Your task to perform on an android device: Search for Mexican restaurants on Maps Image 0: 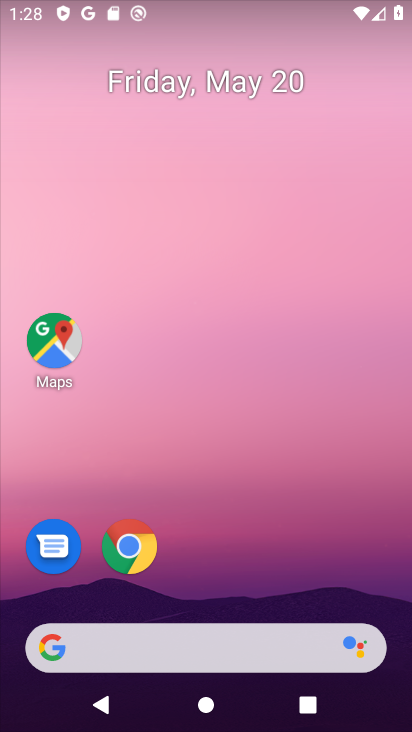
Step 0: drag from (138, 577) to (247, 2)
Your task to perform on an android device: Search for Mexican restaurants on Maps Image 1: 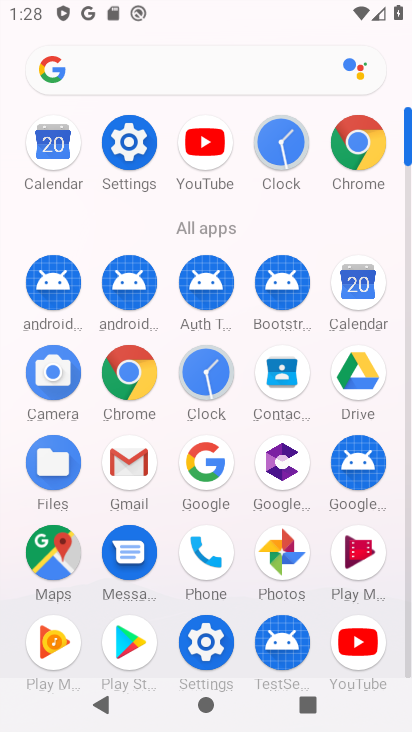
Step 1: click (60, 552)
Your task to perform on an android device: Search for Mexican restaurants on Maps Image 2: 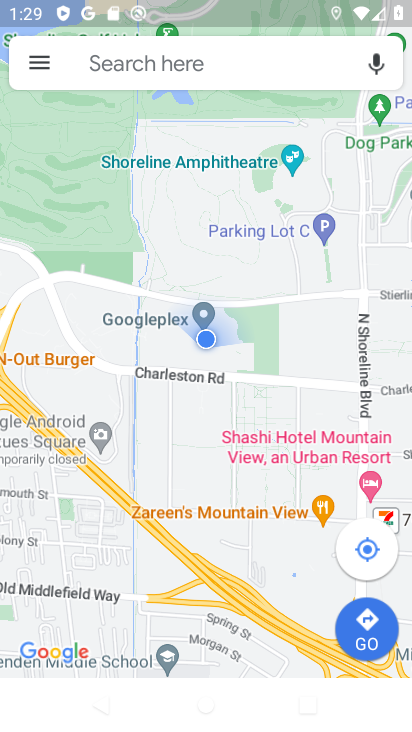
Step 2: click (108, 43)
Your task to perform on an android device: Search for Mexican restaurants on Maps Image 3: 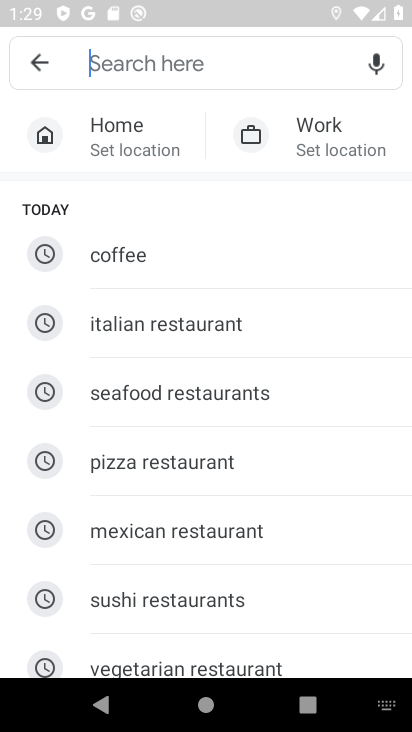
Step 3: click (302, 533)
Your task to perform on an android device: Search for Mexican restaurants on Maps Image 4: 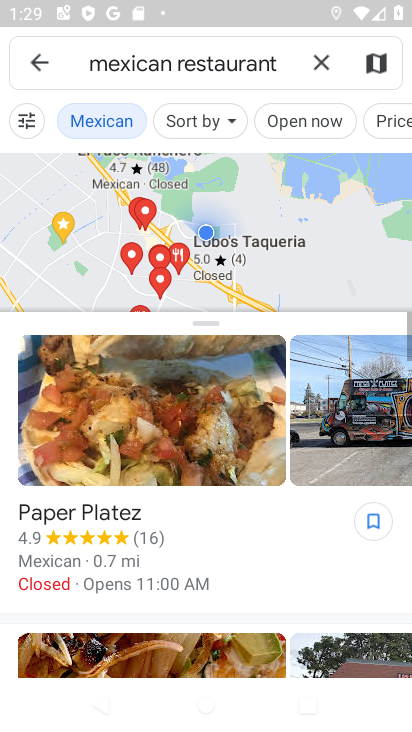
Step 4: task complete